Your task to perform on an android device: see tabs open on other devices in the chrome app Image 0: 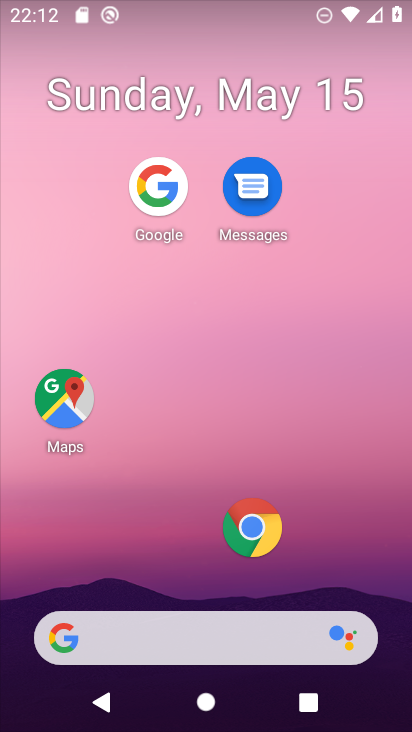
Step 0: press home button
Your task to perform on an android device: see tabs open on other devices in the chrome app Image 1: 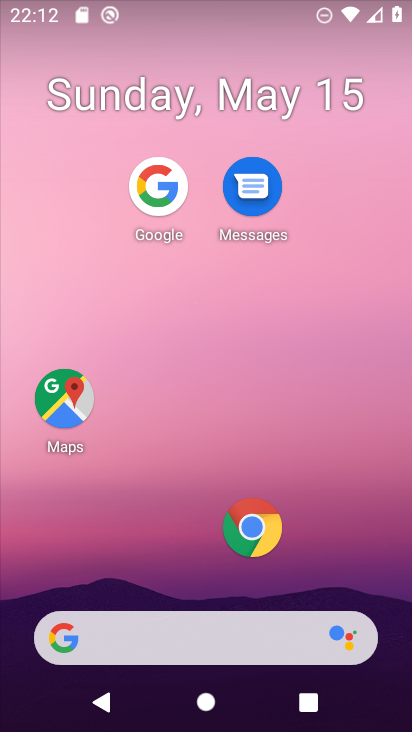
Step 1: click (260, 533)
Your task to perform on an android device: see tabs open on other devices in the chrome app Image 2: 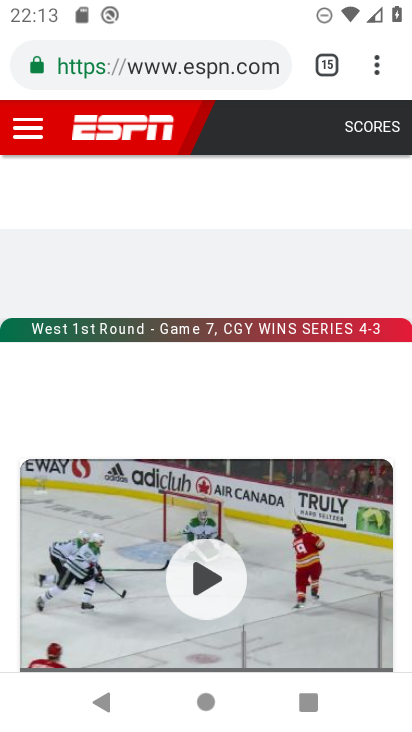
Step 2: task complete